Your task to perform on an android device: Open Chrome and go to the settings page Image 0: 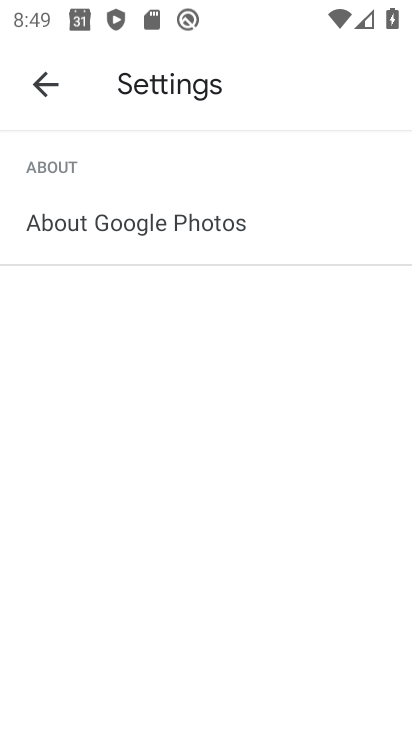
Step 0: press home button
Your task to perform on an android device: Open Chrome and go to the settings page Image 1: 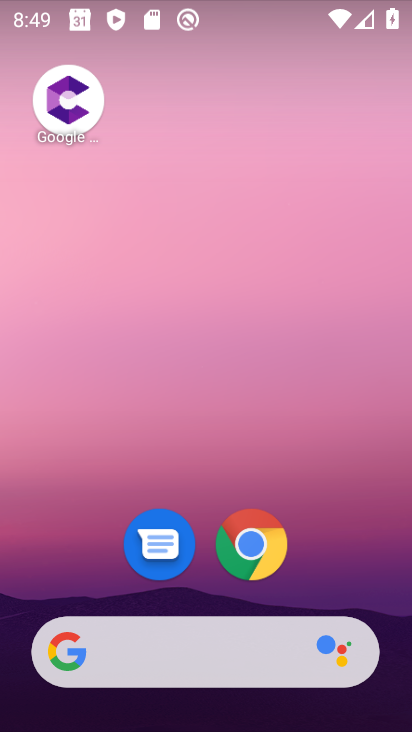
Step 1: click (251, 548)
Your task to perform on an android device: Open Chrome and go to the settings page Image 2: 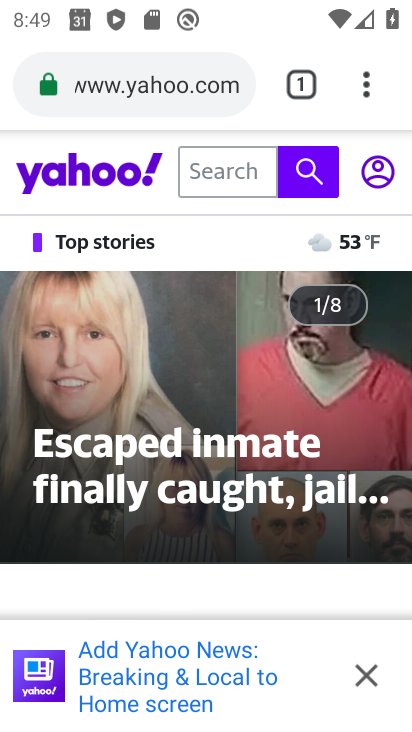
Step 2: click (366, 84)
Your task to perform on an android device: Open Chrome and go to the settings page Image 3: 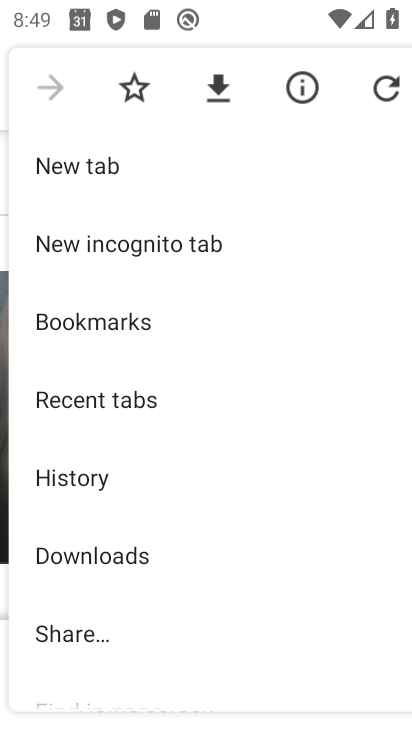
Step 3: drag from (163, 532) to (170, 147)
Your task to perform on an android device: Open Chrome and go to the settings page Image 4: 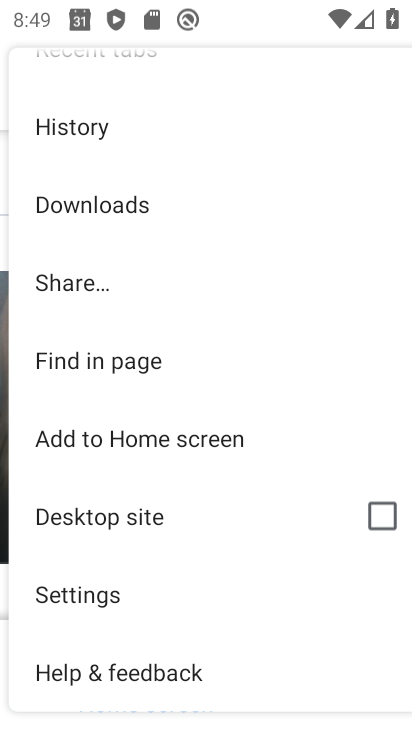
Step 4: click (83, 591)
Your task to perform on an android device: Open Chrome and go to the settings page Image 5: 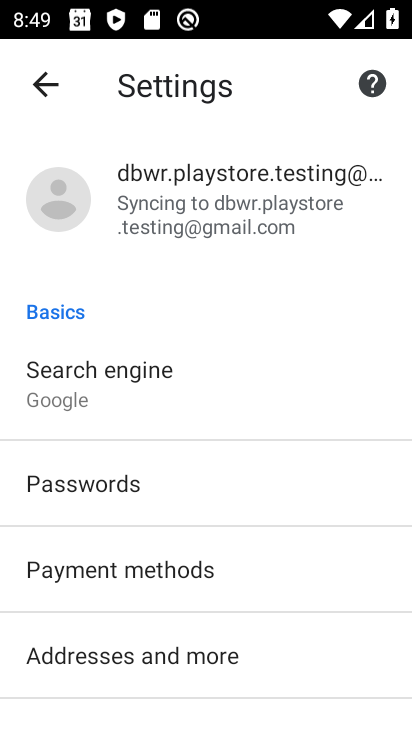
Step 5: task complete